Your task to perform on an android device: Open settings on Google Maps Image 0: 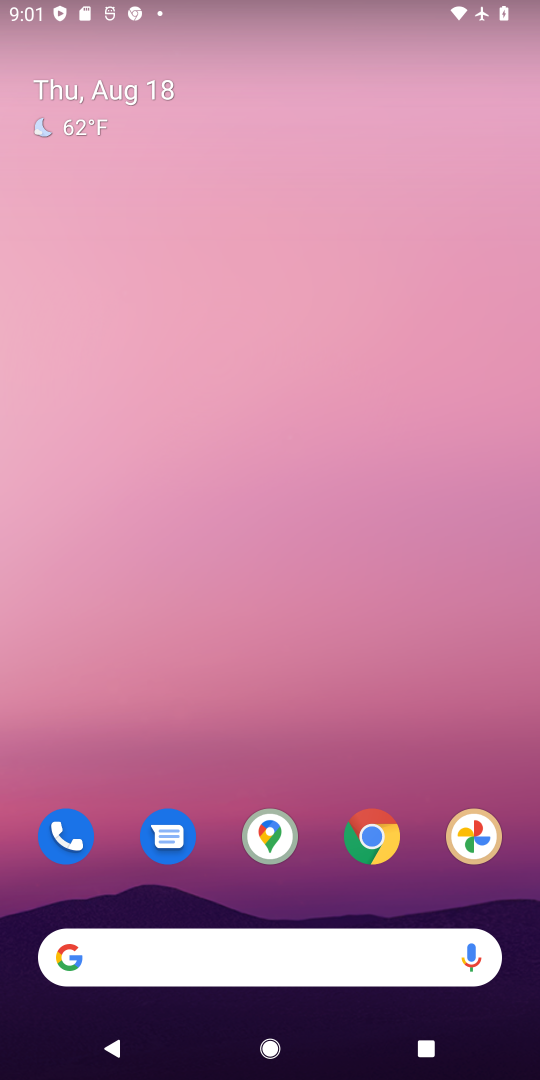
Step 0: click (5, 26)
Your task to perform on an android device: Open settings on Google Maps Image 1: 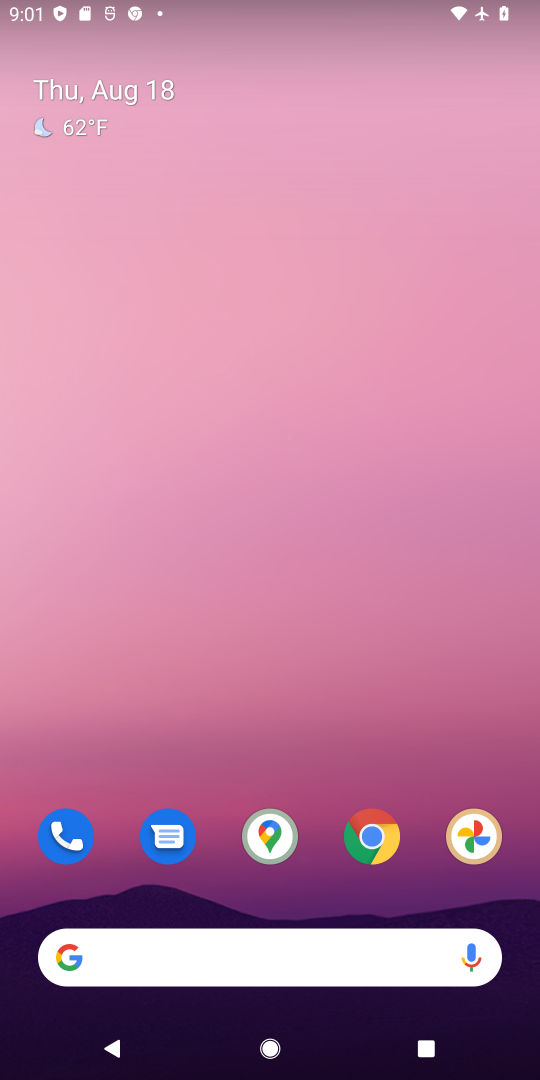
Step 1: drag from (357, 730) to (258, 69)
Your task to perform on an android device: Open settings on Google Maps Image 2: 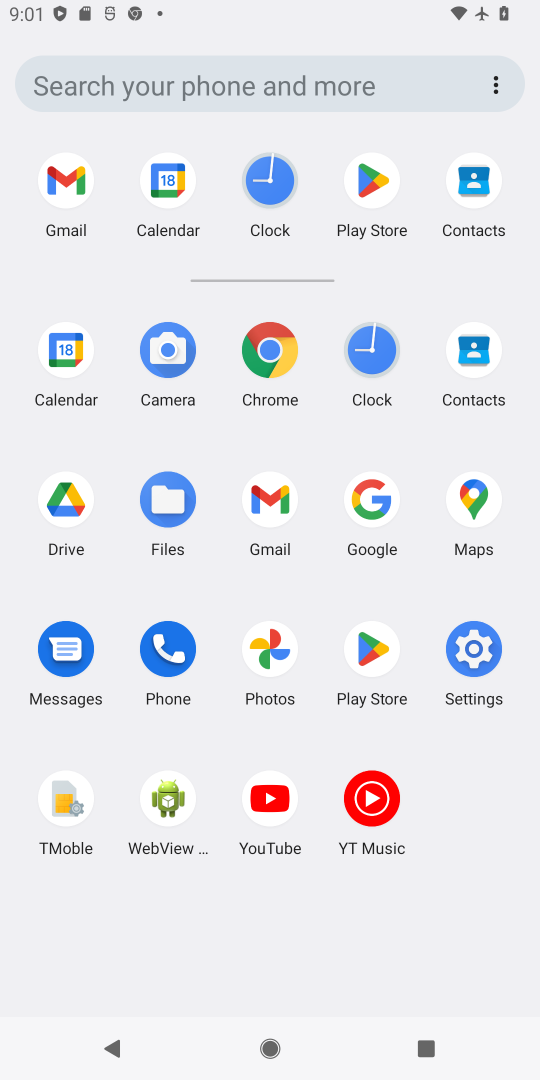
Step 2: click (465, 499)
Your task to perform on an android device: Open settings on Google Maps Image 3: 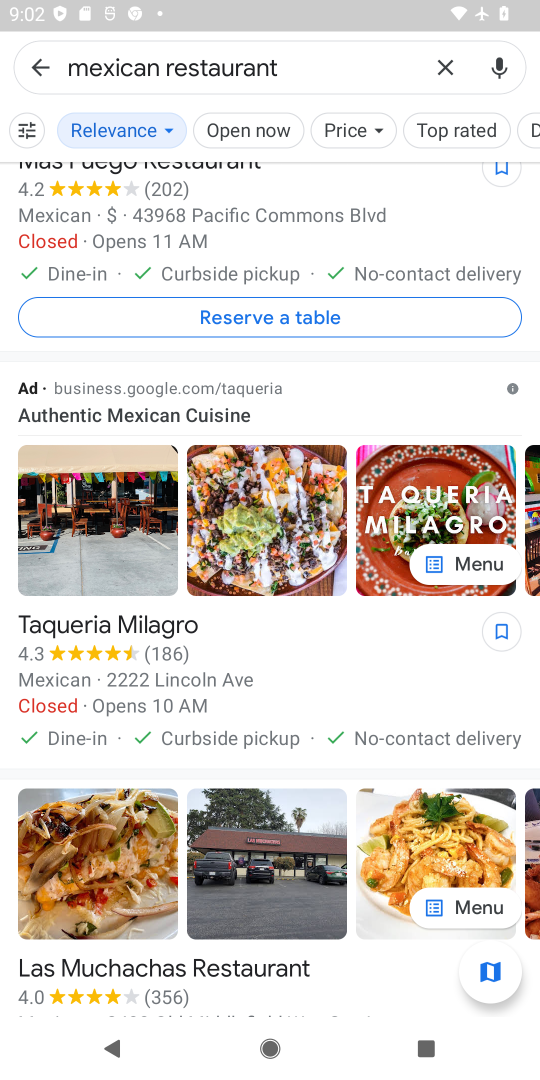
Step 3: press back button
Your task to perform on an android device: Open settings on Google Maps Image 4: 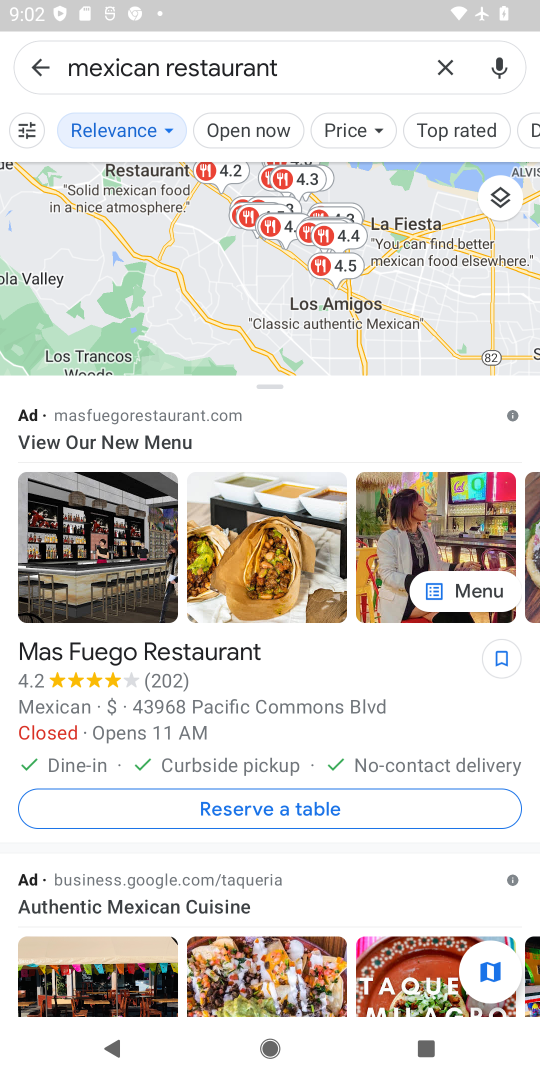
Step 4: press back button
Your task to perform on an android device: Open settings on Google Maps Image 5: 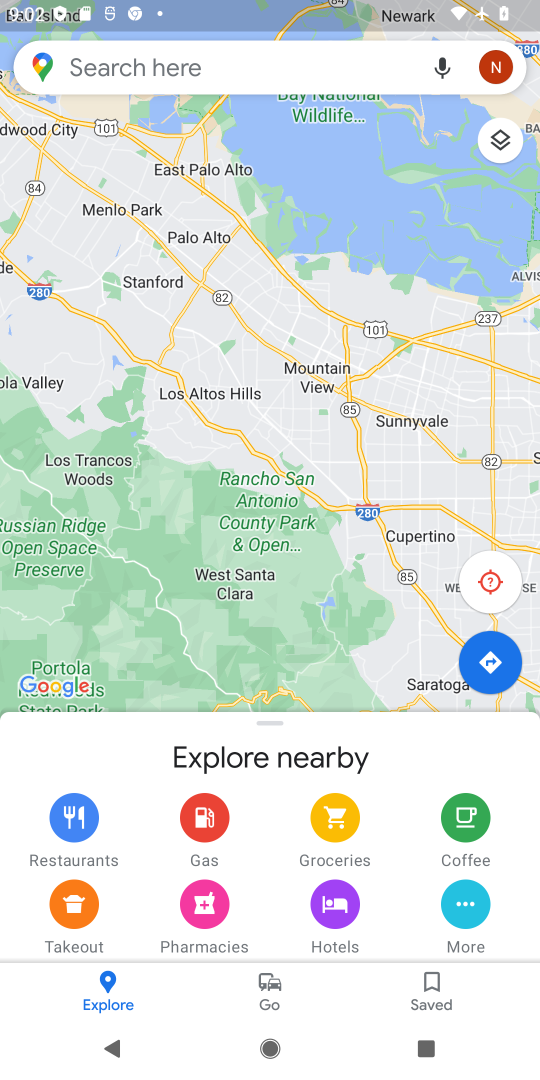
Step 5: click (494, 68)
Your task to perform on an android device: Open settings on Google Maps Image 6: 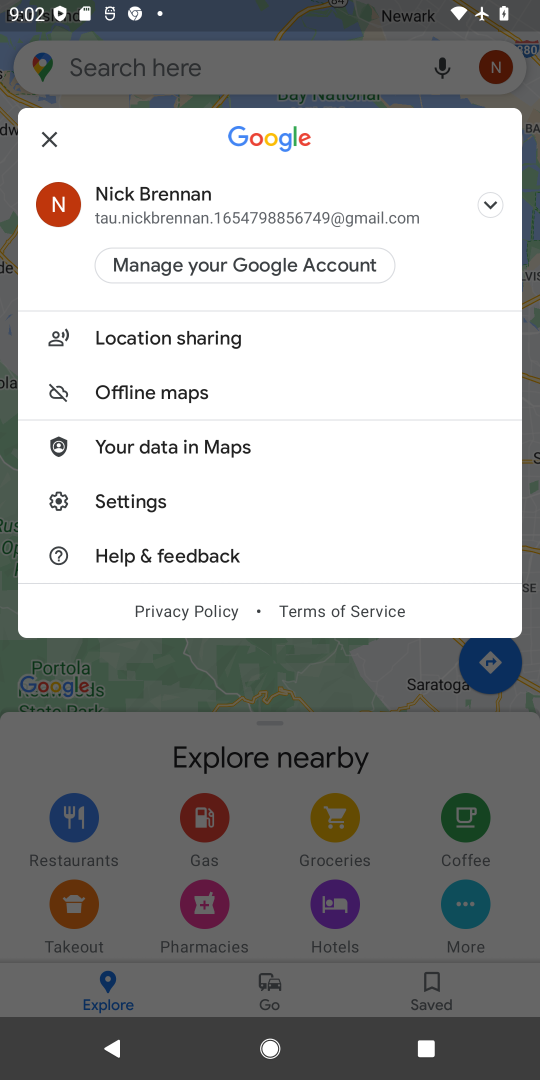
Step 6: click (144, 497)
Your task to perform on an android device: Open settings on Google Maps Image 7: 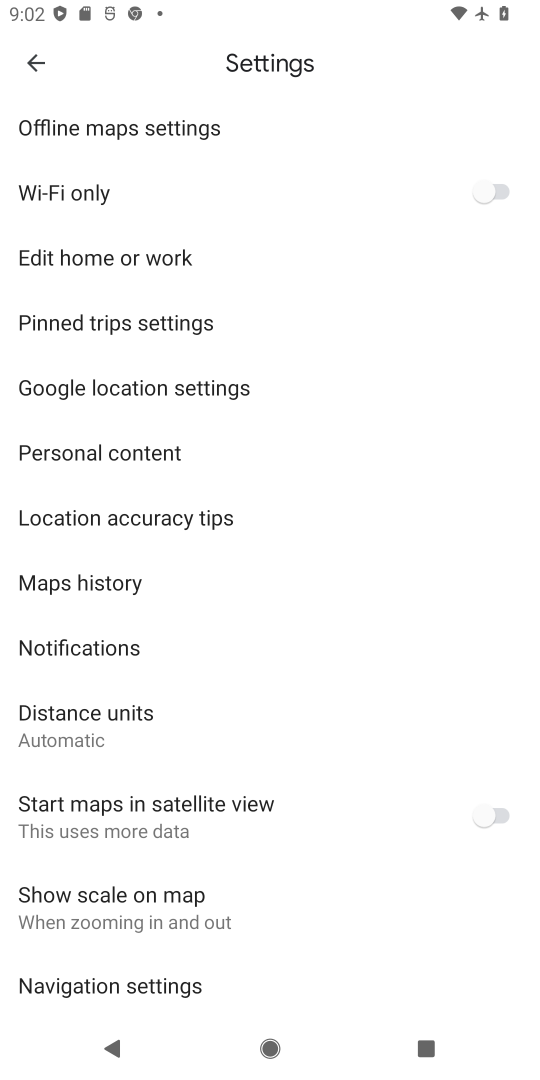
Step 7: task complete